Your task to perform on an android device: open sync settings in chrome Image 0: 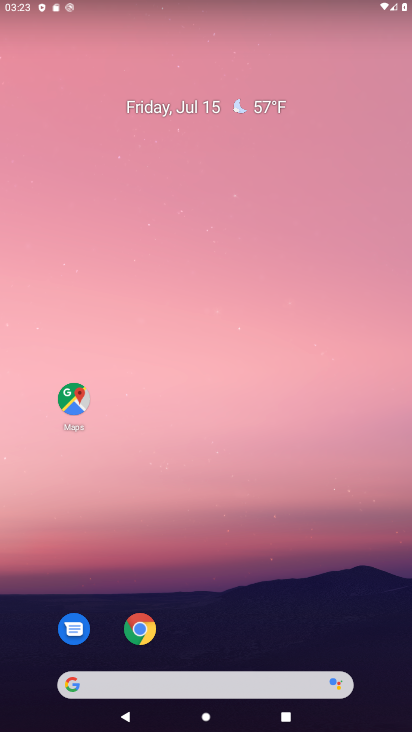
Step 0: click (144, 631)
Your task to perform on an android device: open sync settings in chrome Image 1: 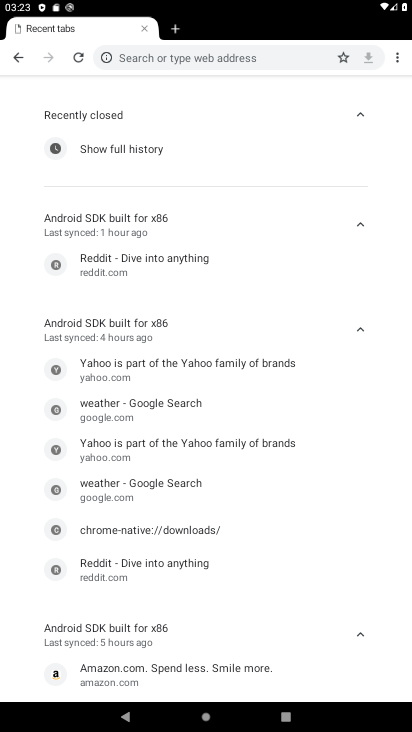
Step 1: click (399, 57)
Your task to perform on an android device: open sync settings in chrome Image 2: 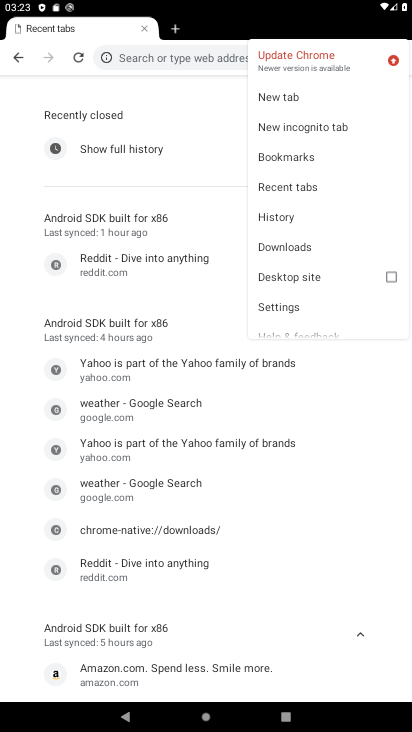
Step 2: click (272, 303)
Your task to perform on an android device: open sync settings in chrome Image 3: 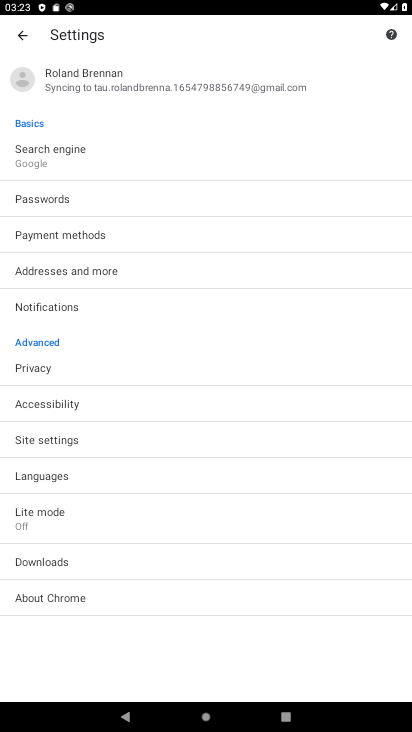
Step 3: click (41, 436)
Your task to perform on an android device: open sync settings in chrome Image 4: 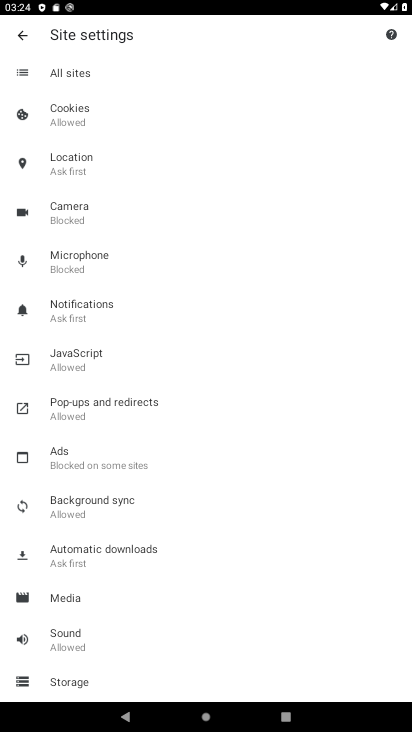
Step 4: click (73, 505)
Your task to perform on an android device: open sync settings in chrome Image 5: 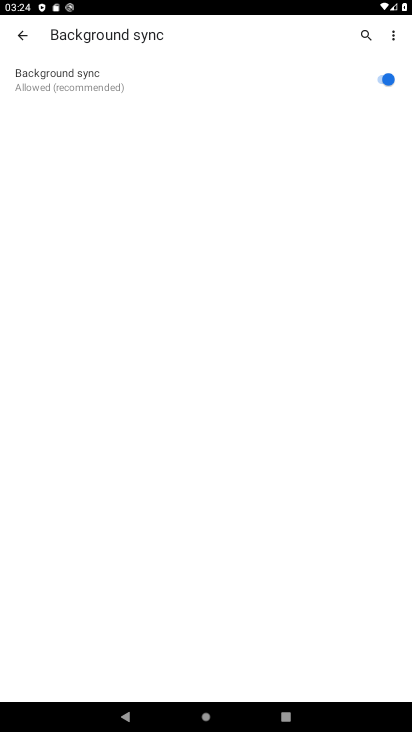
Step 5: click (124, 90)
Your task to perform on an android device: open sync settings in chrome Image 6: 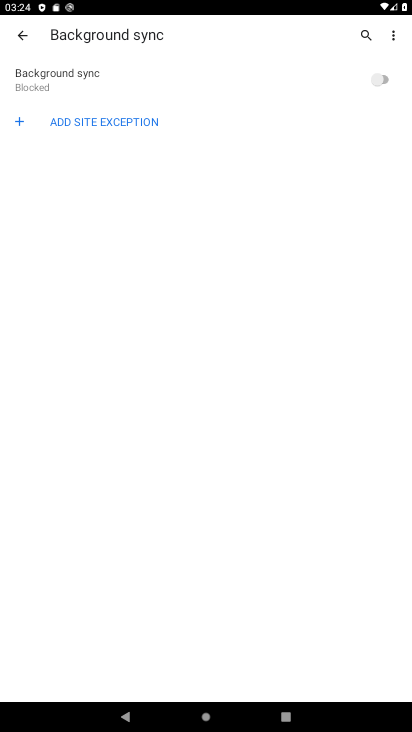
Step 6: click (384, 81)
Your task to perform on an android device: open sync settings in chrome Image 7: 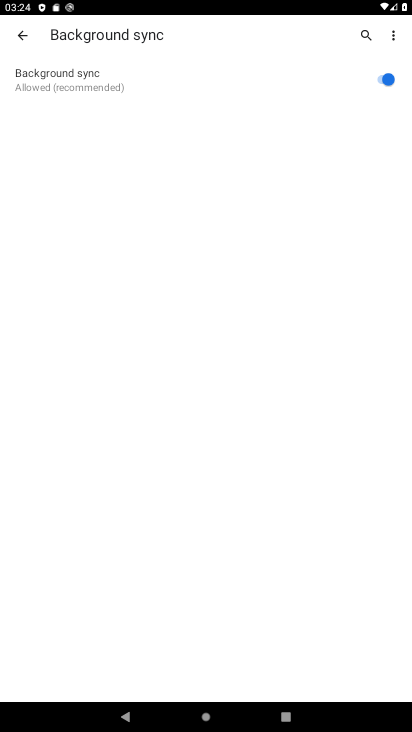
Step 7: task complete